Your task to perform on an android device: turn notification dots on Image 0: 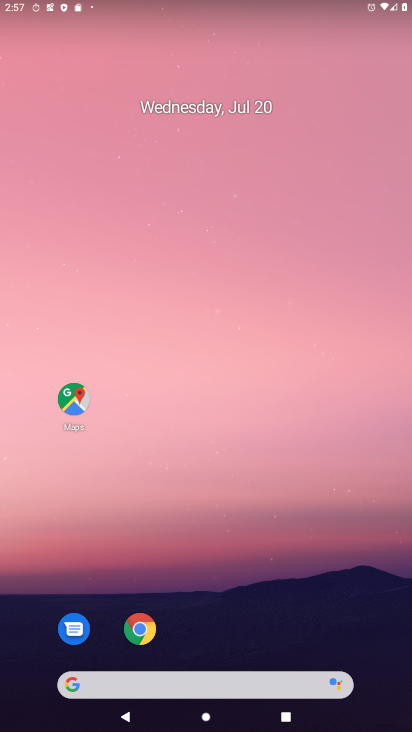
Step 0: drag from (239, 639) to (315, 10)
Your task to perform on an android device: turn notification dots on Image 1: 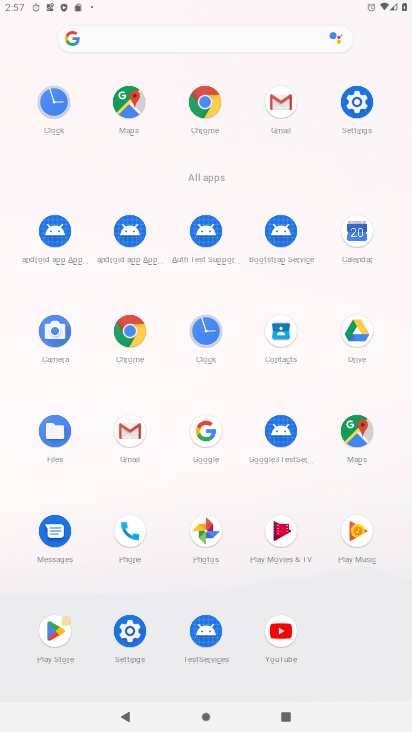
Step 1: click (359, 98)
Your task to perform on an android device: turn notification dots on Image 2: 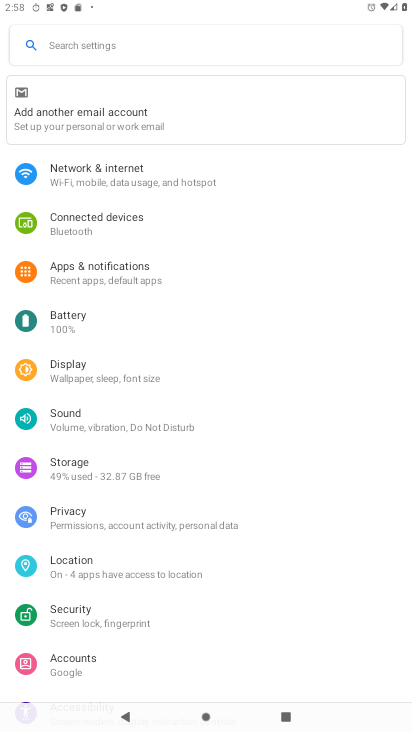
Step 2: click (171, 265)
Your task to perform on an android device: turn notification dots on Image 3: 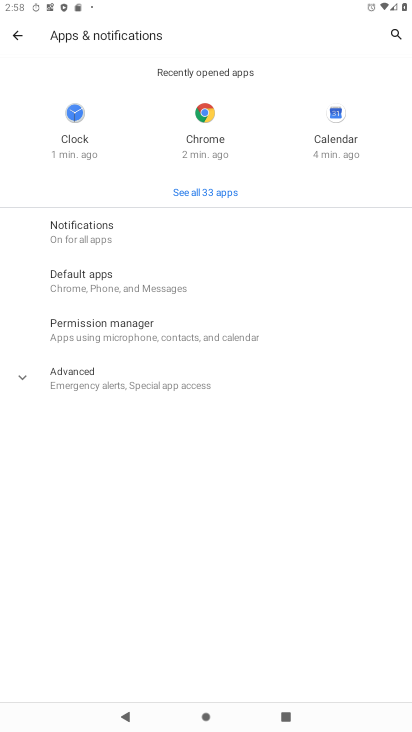
Step 3: click (129, 230)
Your task to perform on an android device: turn notification dots on Image 4: 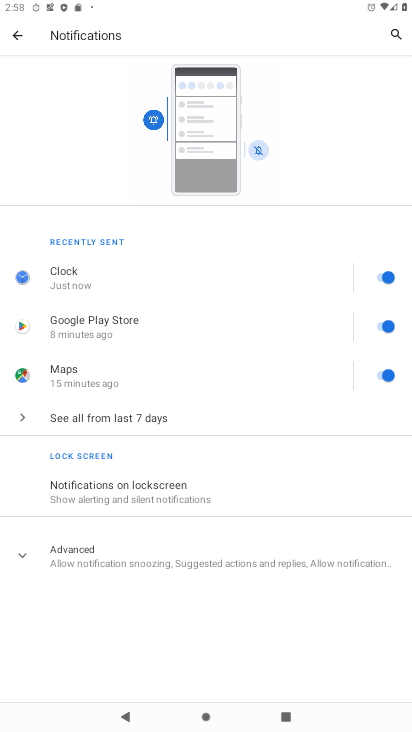
Step 4: click (24, 552)
Your task to perform on an android device: turn notification dots on Image 5: 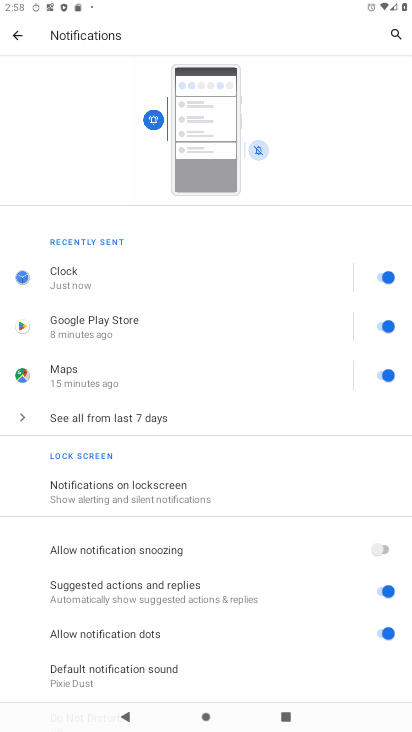
Step 5: task complete